Your task to perform on an android device: refresh tabs in the chrome app Image 0: 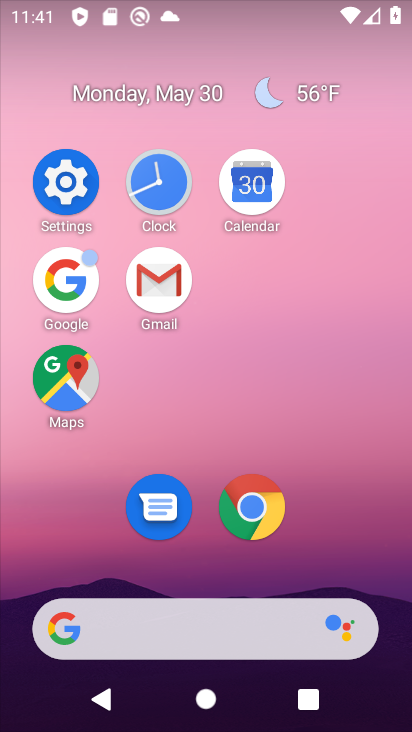
Step 0: click (233, 499)
Your task to perform on an android device: refresh tabs in the chrome app Image 1: 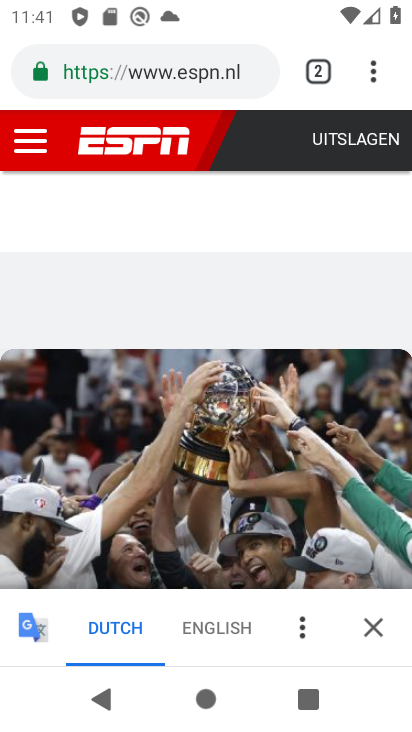
Step 1: click (379, 60)
Your task to perform on an android device: refresh tabs in the chrome app Image 2: 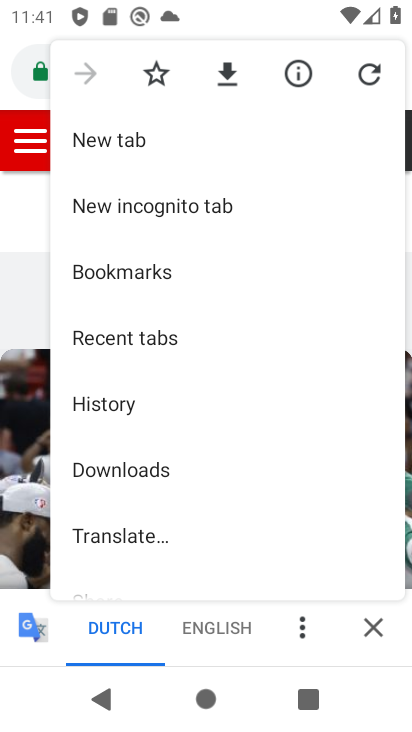
Step 2: click (370, 78)
Your task to perform on an android device: refresh tabs in the chrome app Image 3: 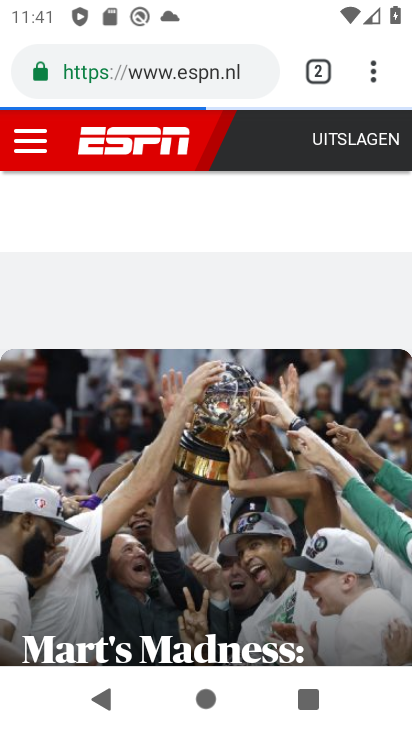
Step 3: task complete